Your task to perform on an android device: Open the Play Movies app and select the watchlist tab. Image 0: 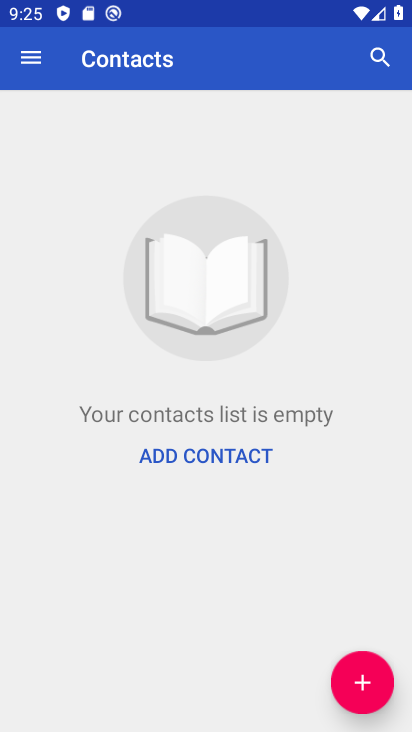
Step 0: press home button
Your task to perform on an android device: Open the Play Movies app and select the watchlist tab. Image 1: 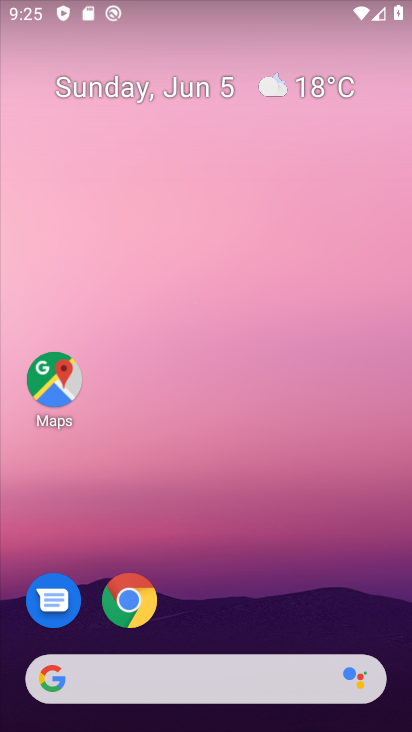
Step 1: drag from (284, 454) to (262, 110)
Your task to perform on an android device: Open the Play Movies app and select the watchlist tab. Image 2: 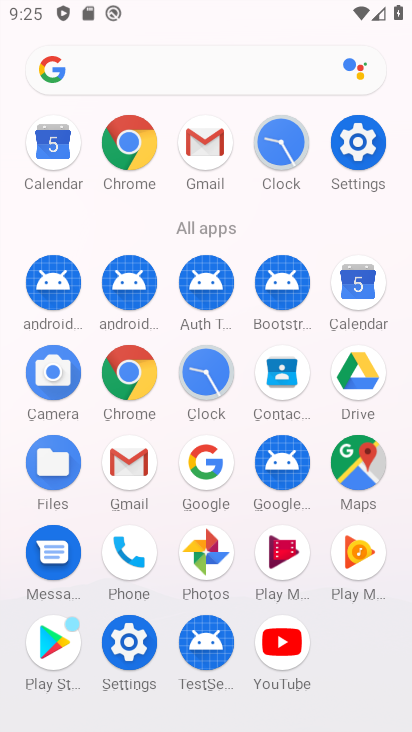
Step 2: click (286, 555)
Your task to perform on an android device: Open the Play Movies app and select the watchlist tab. Image 3: 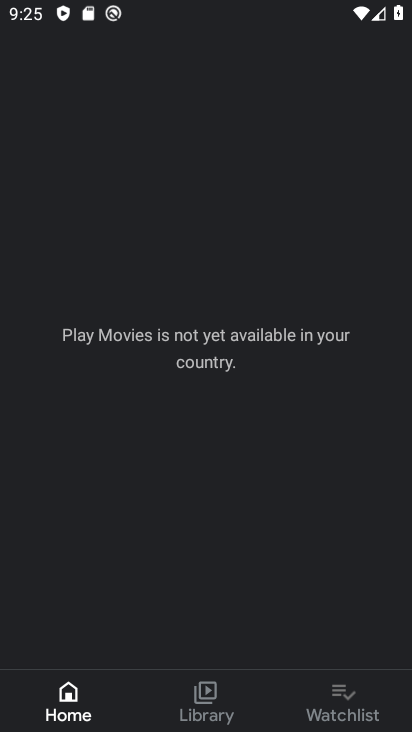
Step 3: click (350, 702)
Your task to perform on an android device: Open the Play Movies app and select the watchlist tab. Image 4: 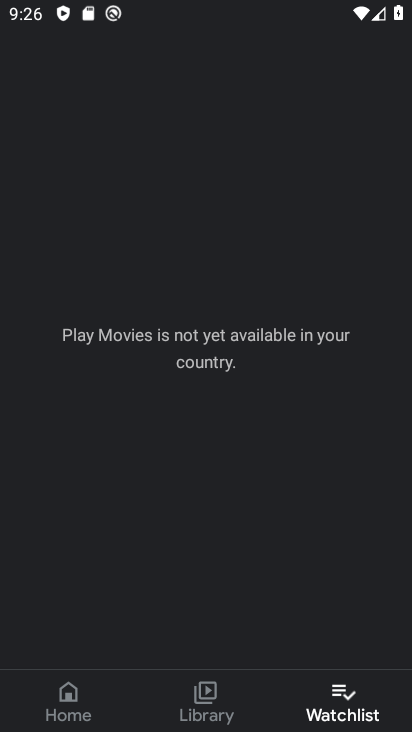
Step 4: task complete